Your task to perform on an android device: Open Yahoo.com Image 0: 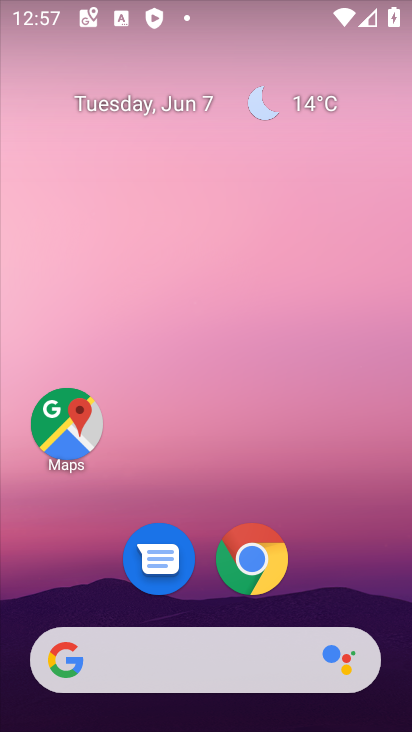
Step 0: click (252, 557)
Your task to perform on an android device: Open Yahoo.com Image 1: 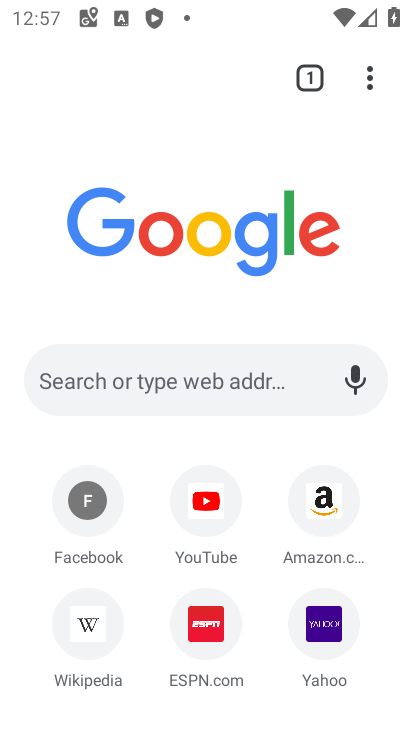
Step 1: click (166, 371)
Your task to perform on an android device: Open Yahoo.com Image 2: 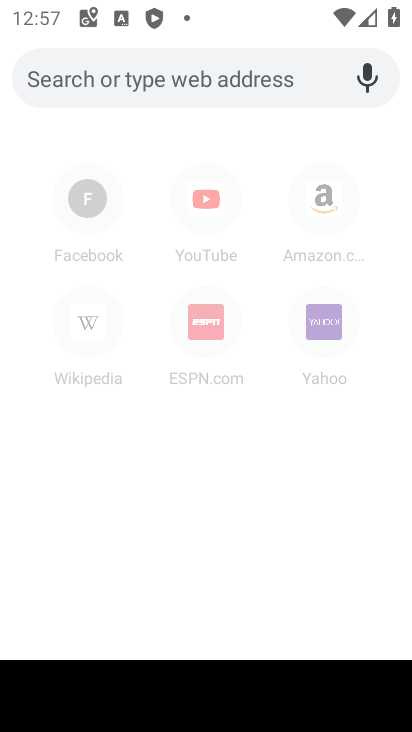
Step 2: type "yahoo.com"
Your task to perform on an android device: Open Yahoo.com Image 3: 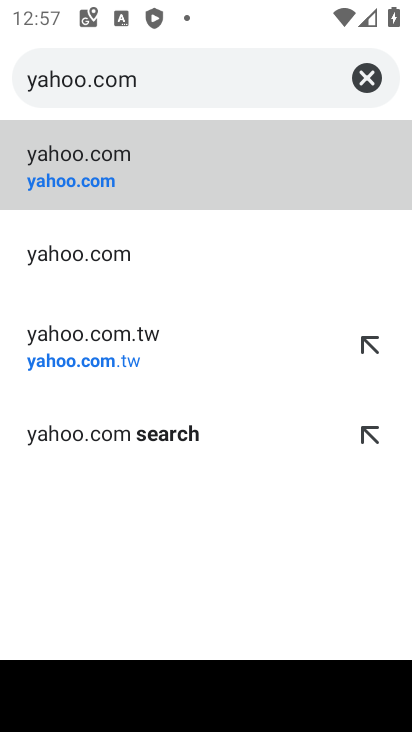
Step 3: click (61, 155)
Your task to perform on an android device: Open Yahoo.com Image 4: 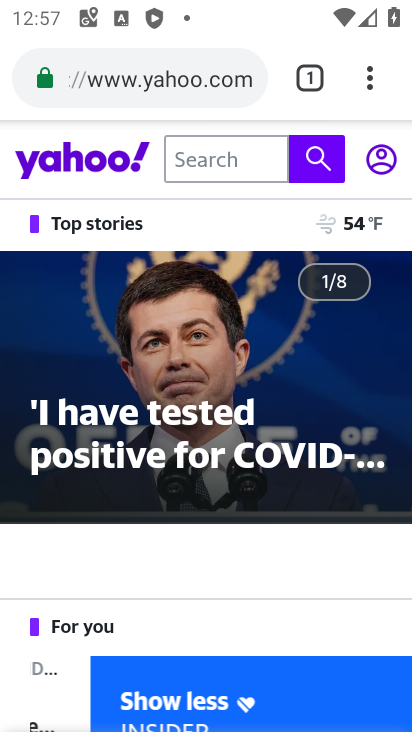
Step 4: task complete